Your task to perform on an android device: Open settings on Google Maps Image 0: 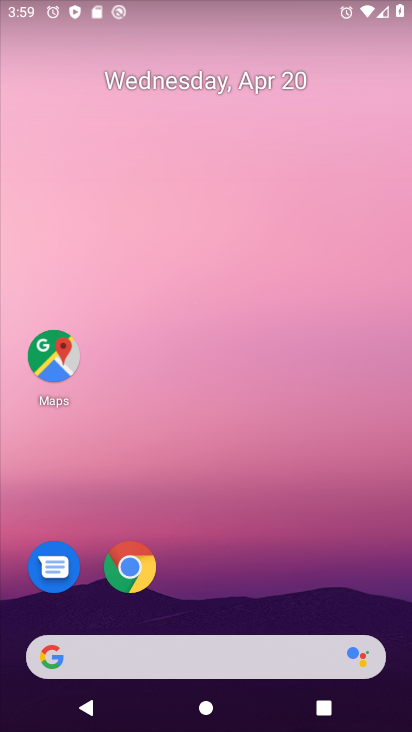
Step 0: drag from (329, 597) to (330, 25)
Your task to perform on an android device: Open settings on Google Maps Image 1: 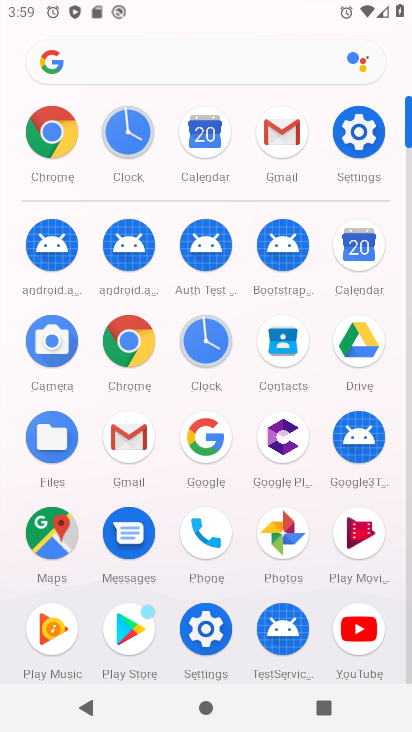
Step 1: click (60, 531)
Your task to perform on an android device: Open settings on Google Maps Image 2: 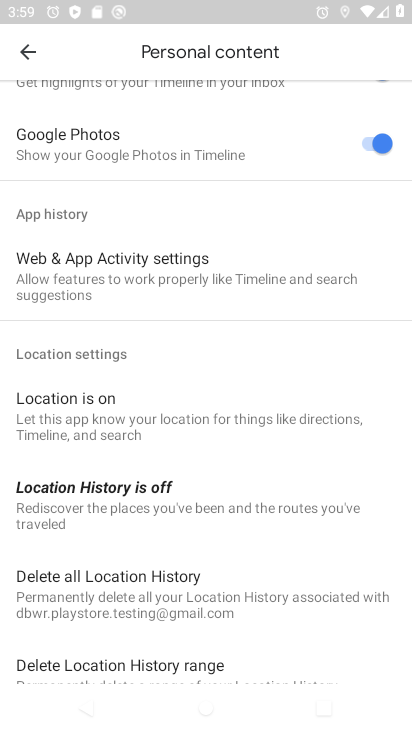
Step 2: task complete